Your task to perform on an android device: create a new album in the google photos Image 0: 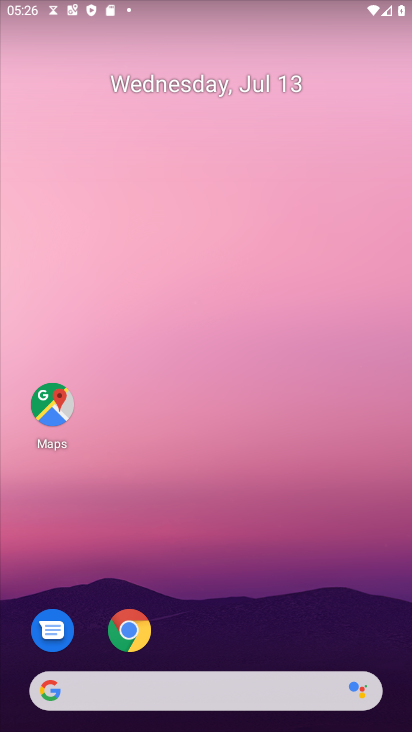
Step 0: drag from (210, 712) to (211, 119)
Your task to perform on an android device: create a new album in the google photos Image 1: 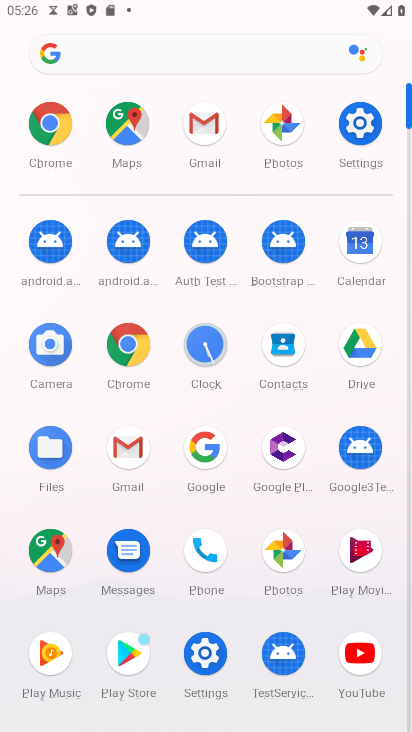
Step 1: click (287, 537)
Your task to perform on an android device: create a new album in the google photos Image 2: 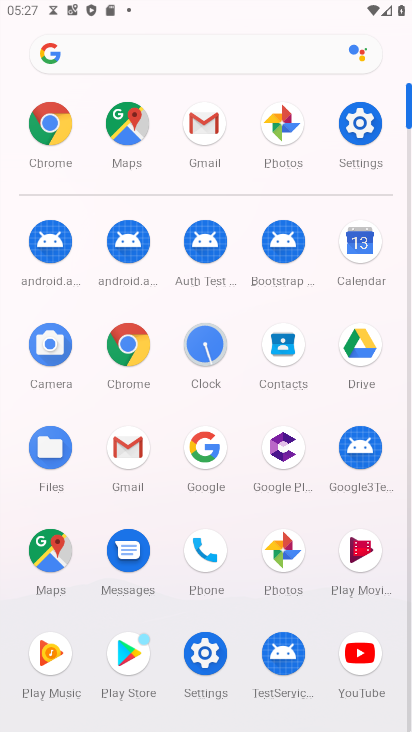
Step 2: click (272, 544)
Your task to perform on an android device: create a new album in the google photos Image 3: 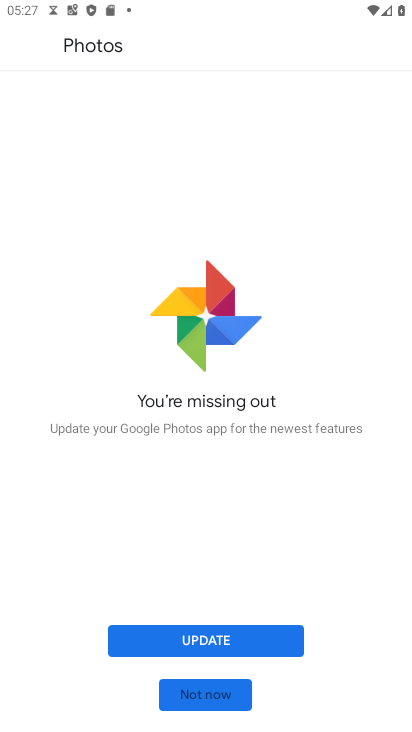
Step 3: click (221, 637)
Your task to perform on an android device: create a new album in the google photos Image 4: 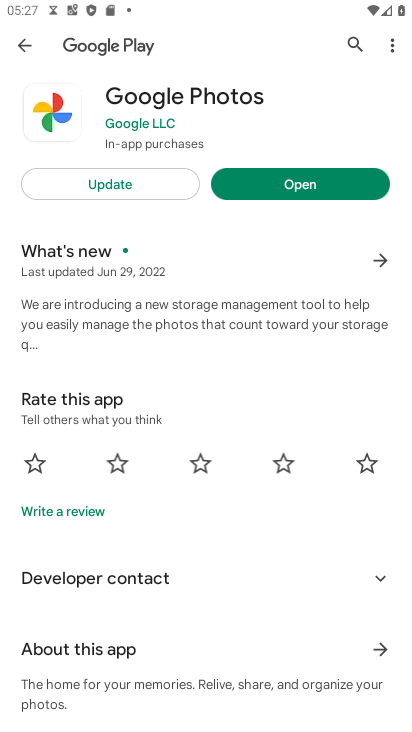
Step 4: click (130, 179)
Your task to perform on an android device: create a new album in the google photos Image 5: 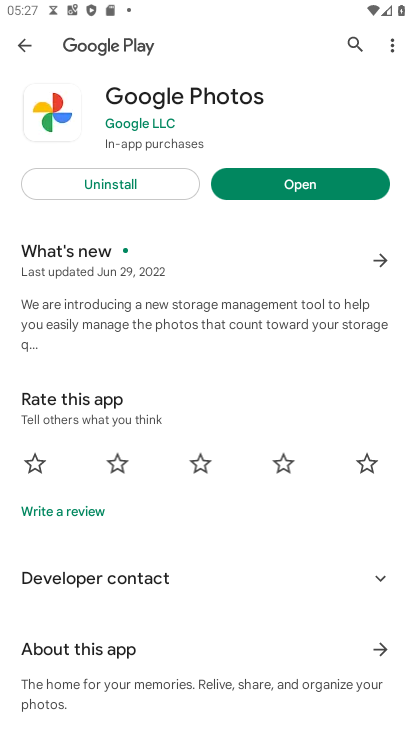
Step 5: click (306, 188)
Your task to perform on an android device: create a new album in the google photos Image 6: 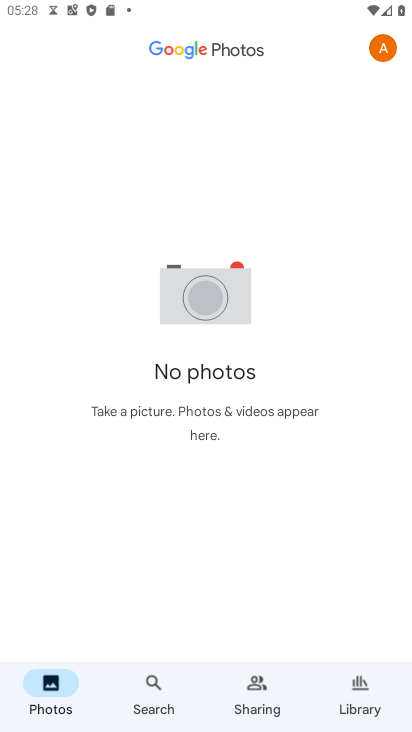
Step 6: task complete